Your task to perform on an android device: Open Maps and search for coffee Image 0: 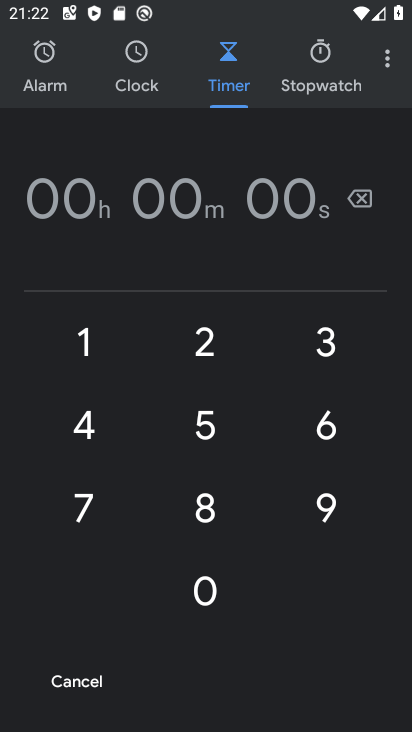
Step 0: press home button
Your task to perform on an android device: Open Maps and search for coffee Image 1: 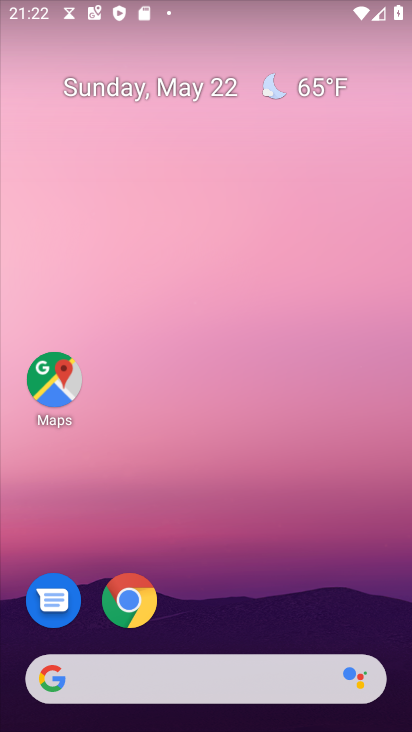
Step 1: click (66, 385)
Your task to perform on an android device: Open Maps and search for coffee Image 2: 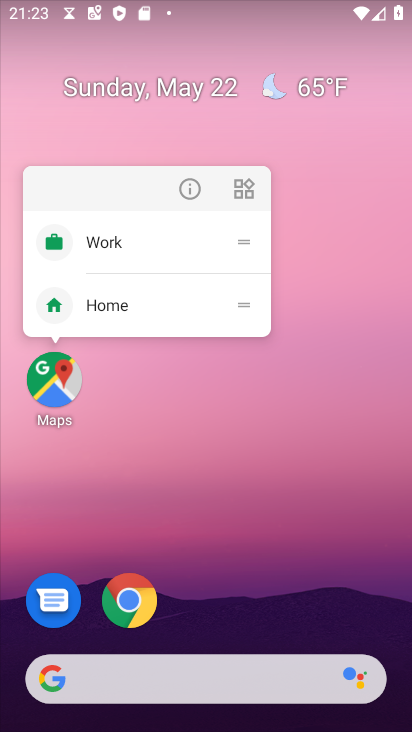
Step 2: click (59, 407)
Your task to perform on an android device: Open Maps and search for coffee Image 3: 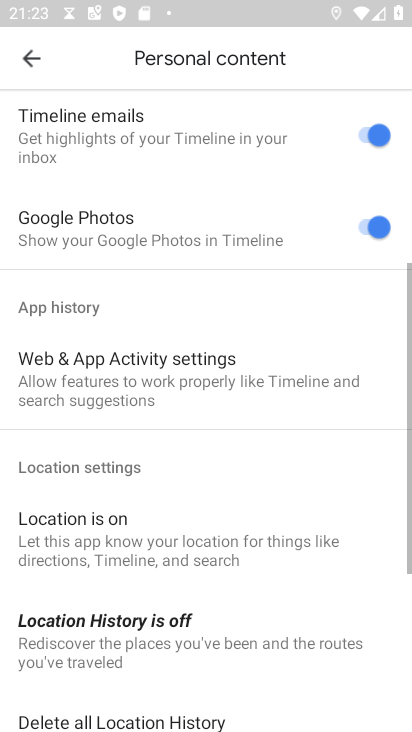
Step 3: click (29, 61)
Your task to perform on an android device: Open Maps and search for coffee Image 4: 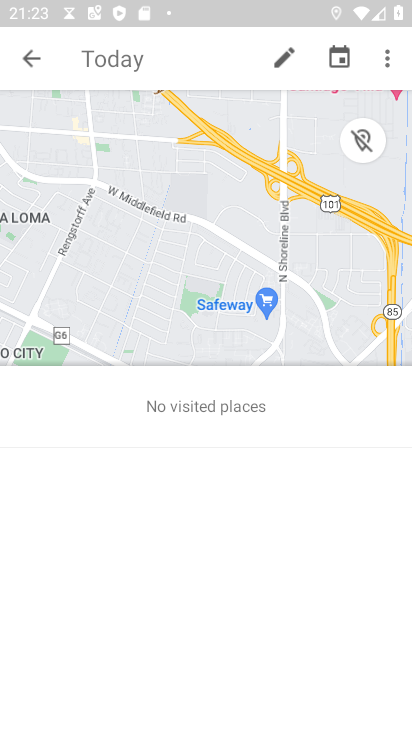
Step 4: click (25, 59)
Your task to perform on an android device: Open Maps and search for coffee Image 5: 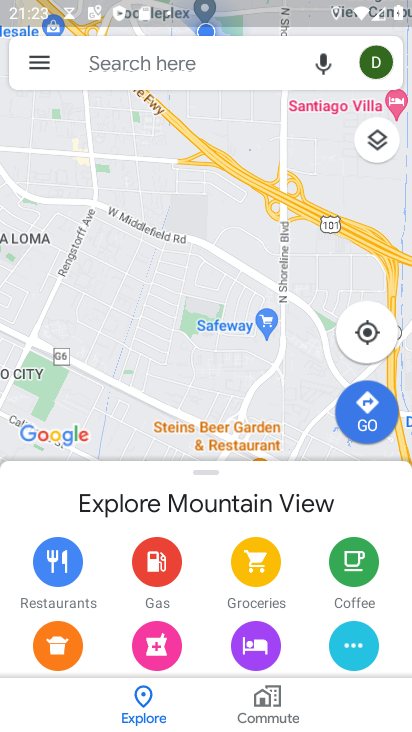
Step 5: click (170, 68)
Your task to perform on an android device: Open Maps and search for coffee Image 6: 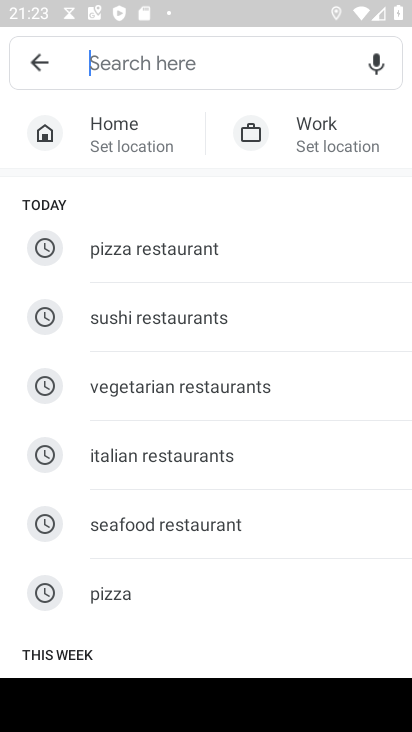
Step 6: drag from (179, 577) to (170, 334)
Your task to perform on an android device: Open Maps and search for coffee Image 7: 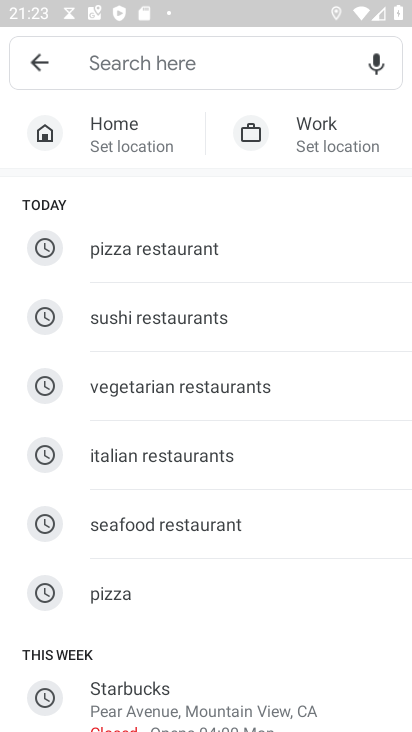
Step 7: click (155, 52)
Your task to perform on an android device: Open Maps and search for coffee Image 8: 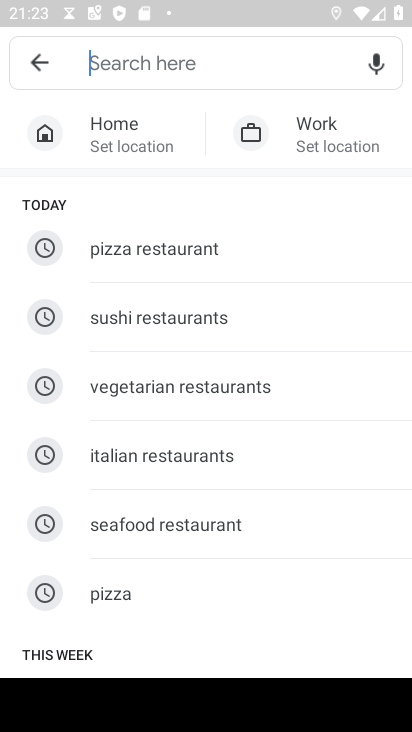
Step 8: type "coffee"
Your task to perform on an android device: Open Maps and search for coffee Image 9: 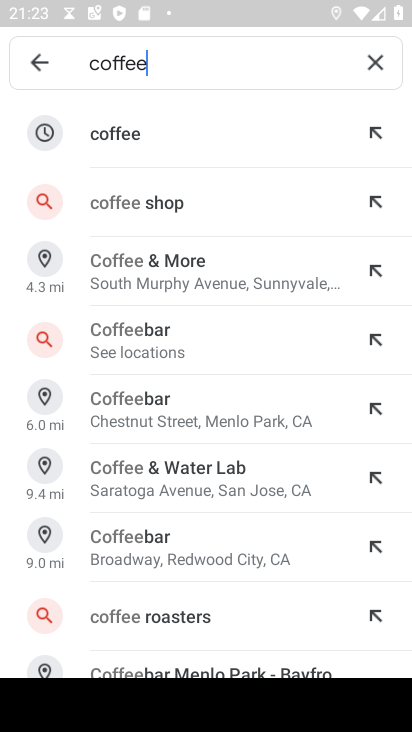
Step 9: click (151, 104)
Your task to perform on an android device: Open Maps and search for coffee Image 10: 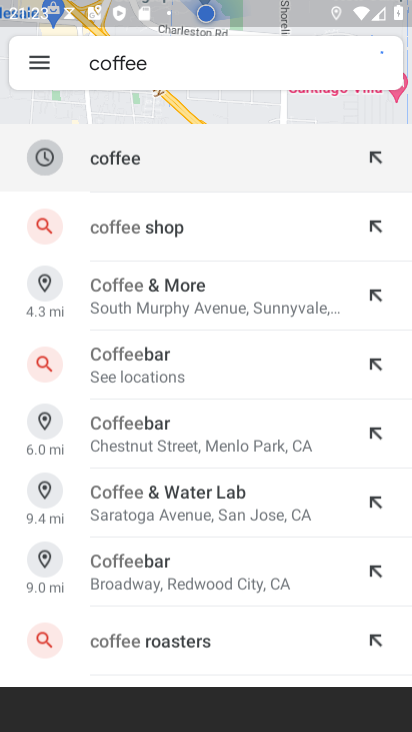
Step 10: click (138, 141)
Your task to perform on an android device: Open Maps and search for coffee Image 11: 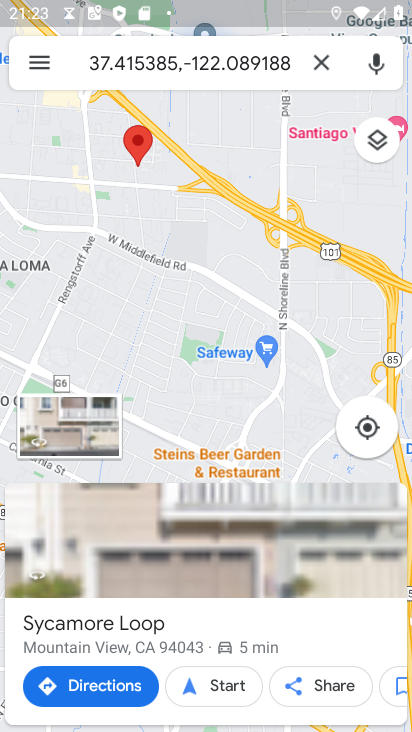
Step 11: task complete